Your task to perform on an android device: move a message to another label in the gmail app Image 0: 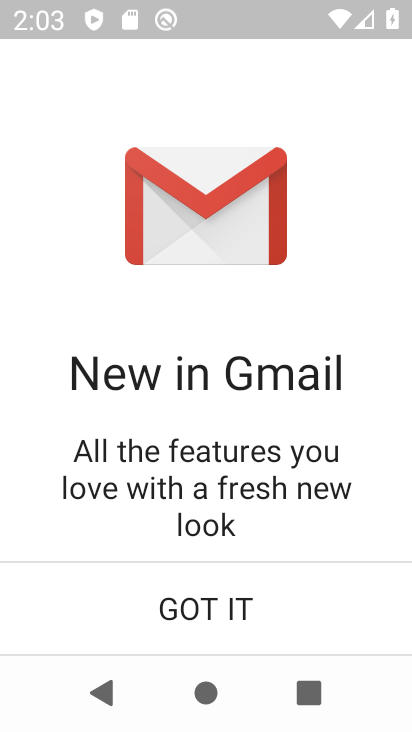
Step 0: press home button
Your task to perform on an android device: move a message to another label in the gmail app Image 1: 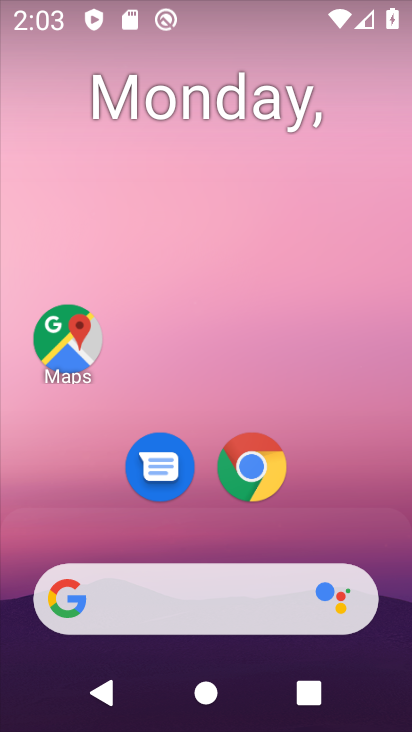
Step 1: drag from (388, 552) to (270, 161)
Your task to perform on an android device: move a message to another label in the gmail app Image 2: 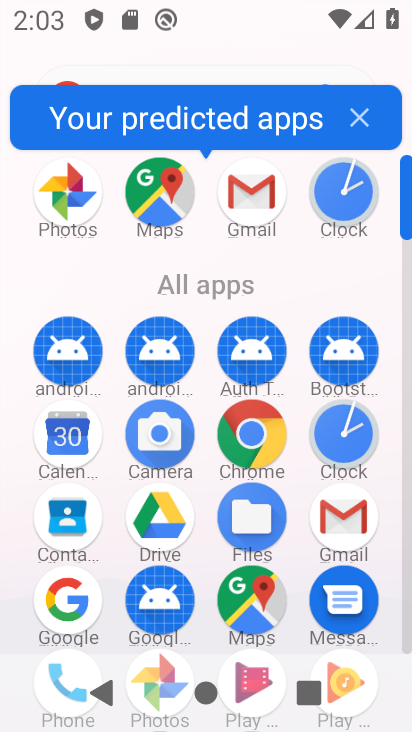
Step 2: click (254, 217)
Your task to perform on an android device: move a message to another label in the gmail app Image 3: 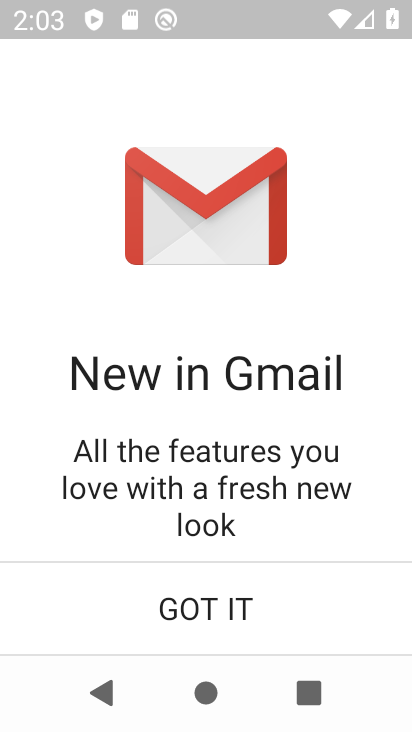
Step 3: click (230, 598)
Your task to perform on an android device: move a message to another label in the gmail app Image 4: 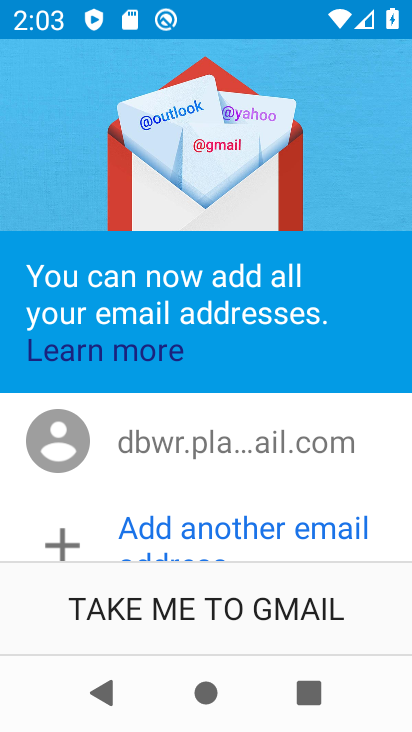
Step 4: click (239, 627)
Your task to perform on an android device: move a message to another label in the gmail app Image 5: 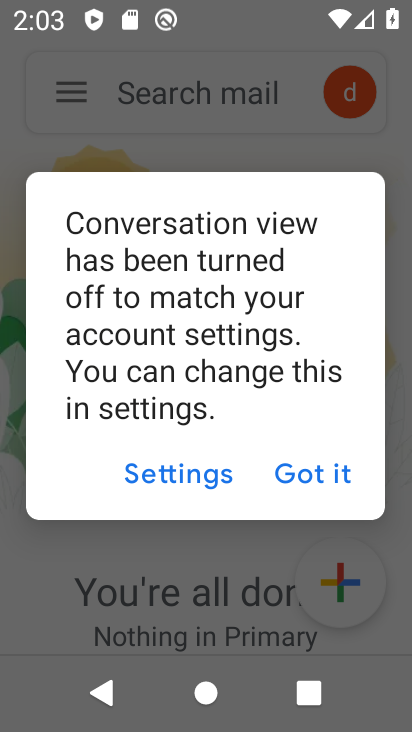
Step 5: click (318, 466)
Your task to perform on an android device: move a message to another label in the gmail app Image 6: 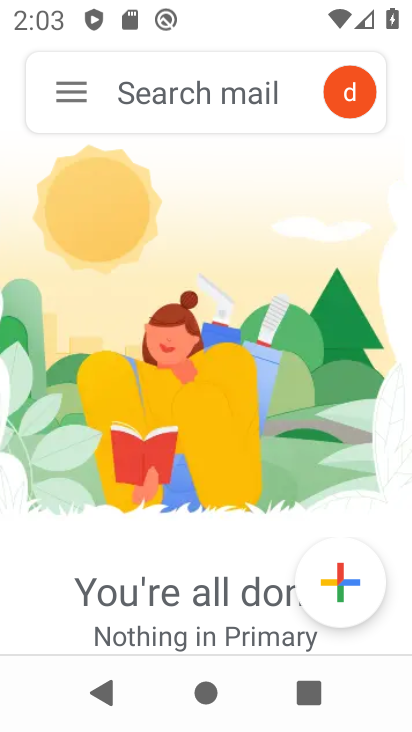
Step 6: click (81, 106)
Your task to perform on an android device: move a message to another label in the gmail app Image 7: 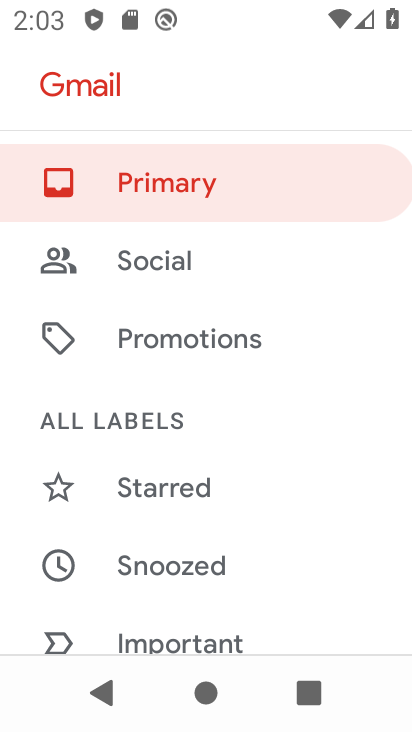
Step 7: drag from (229, 581) to (222, 89)
Your task to perform on an android device: move a message to another label in the gmail app Image 8: 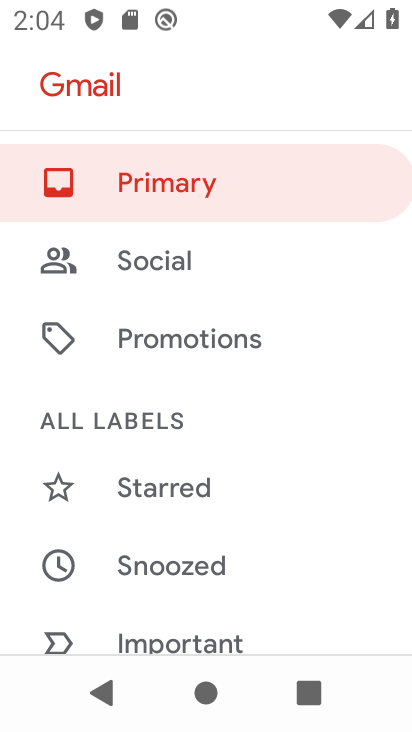
Step 8: drag from (173, 632) to (170, 110)
Your task to perform on an android device: move a message to another label in the gmail app Image 9: 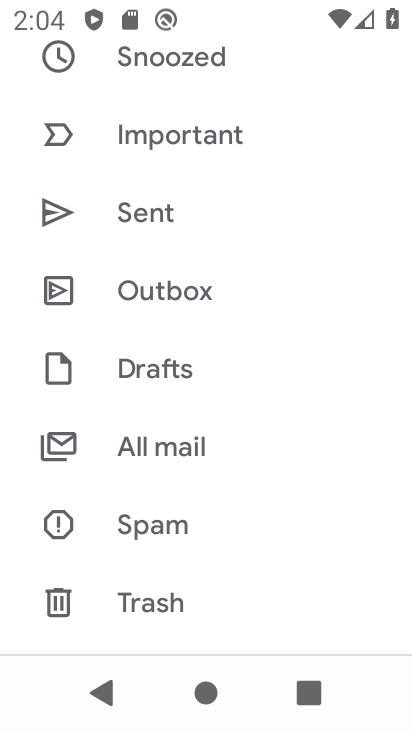
Step 9: click (184, 437)
Your task to perform on an android device: move a message to another label in the gmail app Image 10: 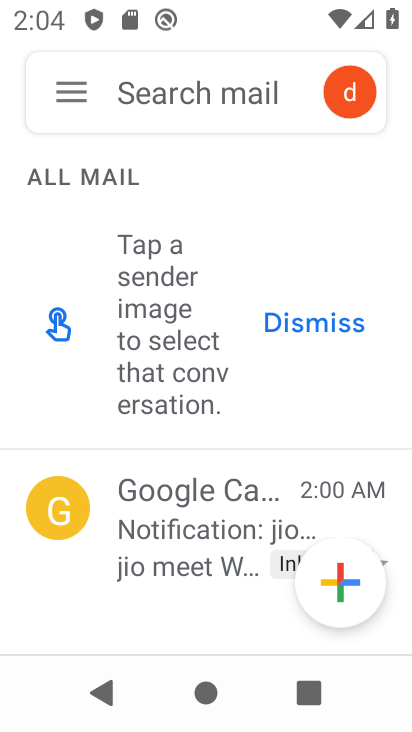
Step 10: click (207, 517)
Your task to perform on an android device: move a message to another label in the gmail app Image 11: 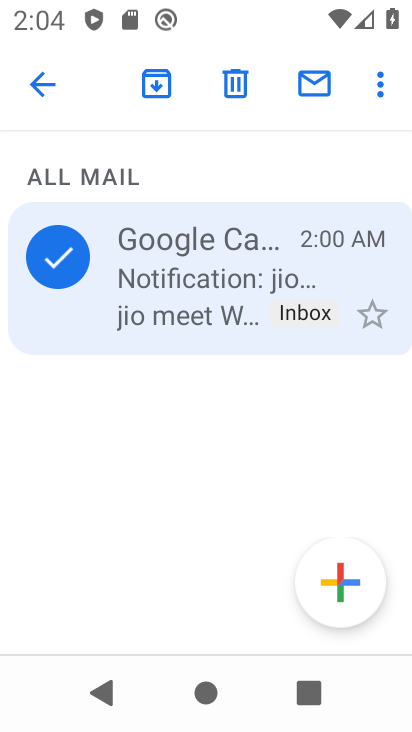
Step 11: click (376, 84)
Your task to perform on an android device: move a message to another label in the gmail app Image 12: 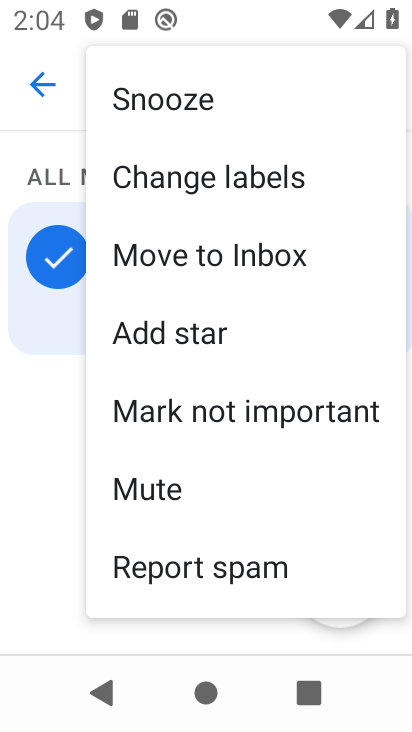
Step 12: click (274, 257)
Your task to perform on an android device: move a message to another label in the gmail app Image 13: 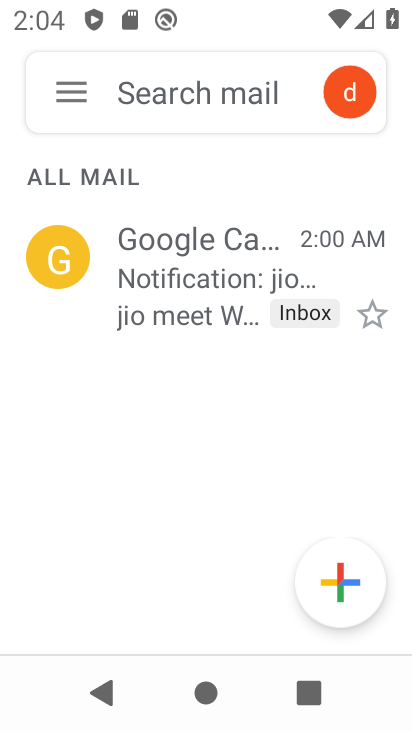
Step 13: task complete